Your task to perform on an android device: star an email in the gmail app Image 0: 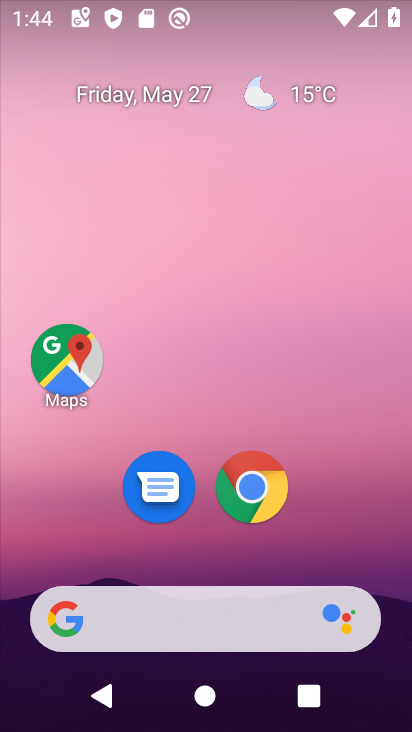
Step 0: drag from (329, 539) to (218, 70)
Your task to perform on an android device: star an email in the gmail app Image 1: 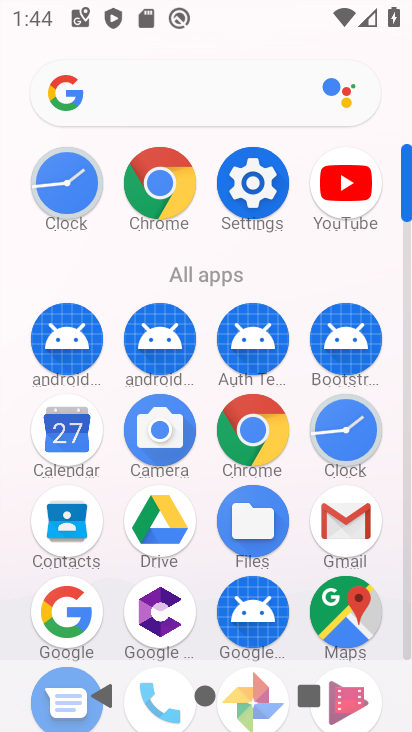
Step 1: click (363, 530)
Your task to perform on an android device: star an email in the gmail app Image 2: 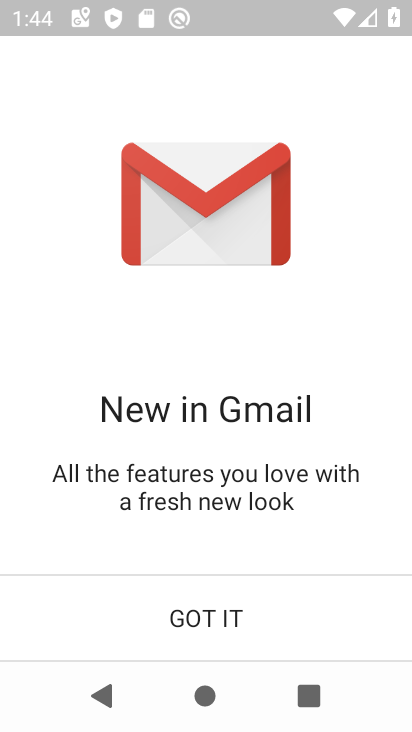
Step 2: click (249, 626)
Your task to perform on an android device: star an email in the gmail app Image 3: 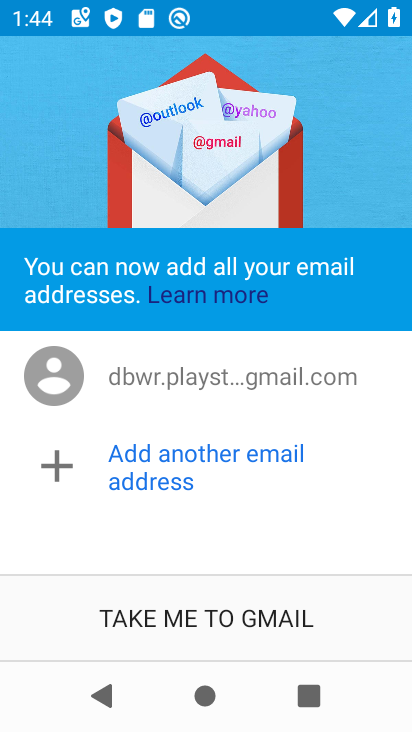
Step 3: click (249, 626)
Your task to perform on an android device: star an email in the gmail app Image 4: 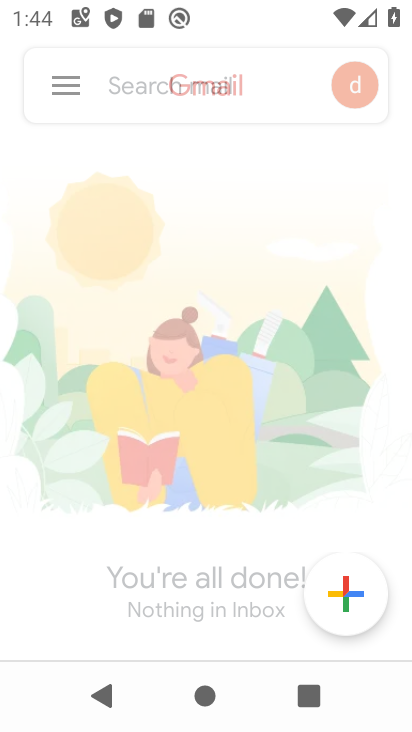
Step 4: click (62, 86)
Your task to perform on an android device: star an email in the gmail app Image 5: 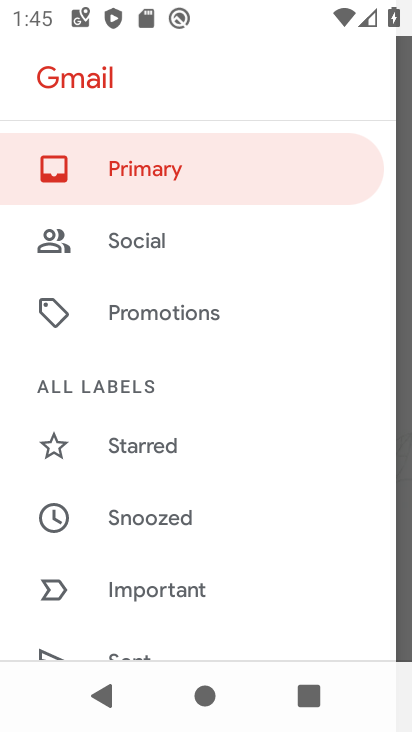
Step 5: drag from (156, 508) to (187, 201)
Your task to perform on an android device: star an email in the gmail app Image 6: 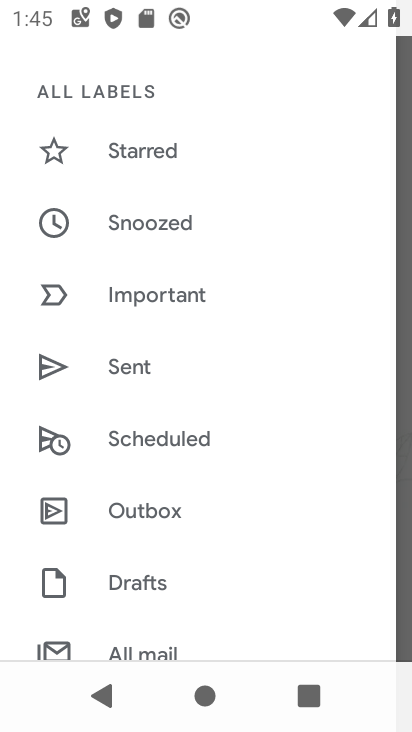
Step 6: drag from (129, 492) to (142, 252)
Your task to perform on an android device: star an email in the gmail app Image 7: 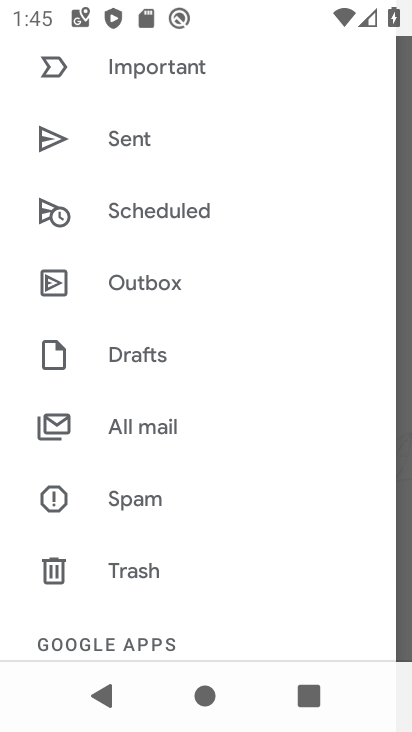
Step 7: click (129, 437)
Your task to perform on an android device: star an email in the gmail app Image 8: 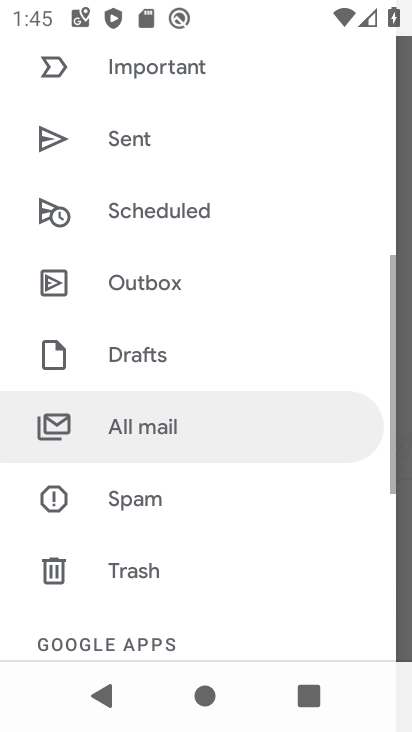
Step 8: click (129, 437)
Your task to perform on an android device: star an email in the gmail app Image 9: 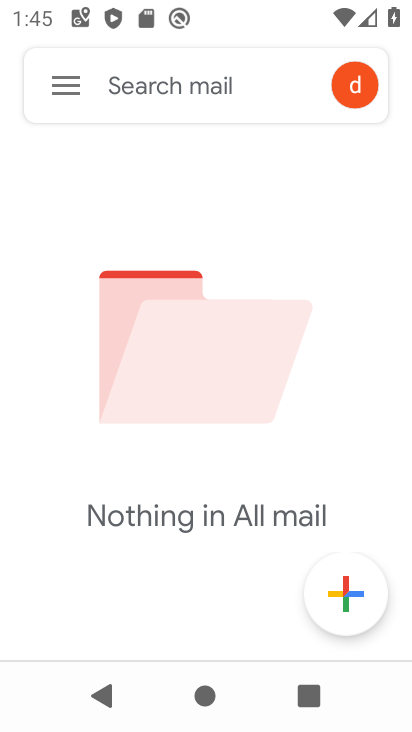
Step 9: task complete